Your task to perform on an android device: Go to Amazon Image 0: 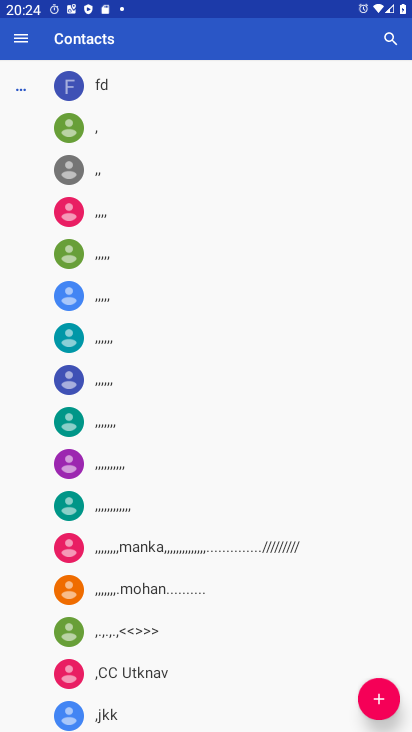
Step 0: press home button
Your task to perform on an android device: Go to Amazon Image 1: 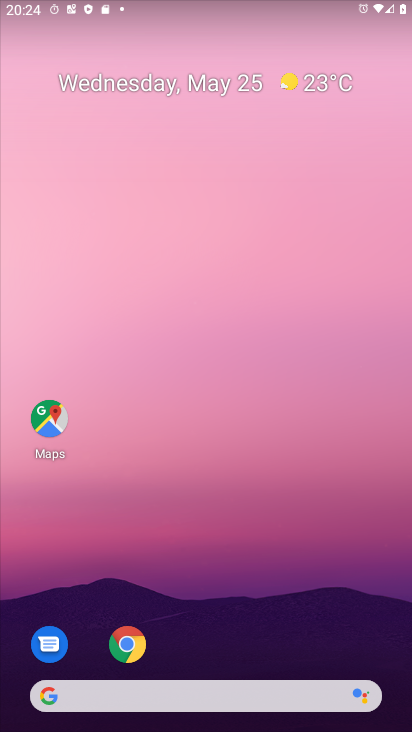
Step 1: drag from (239, 711) to (222, 132)
Your task to perform on an android device: Go to Amazon Image 2: 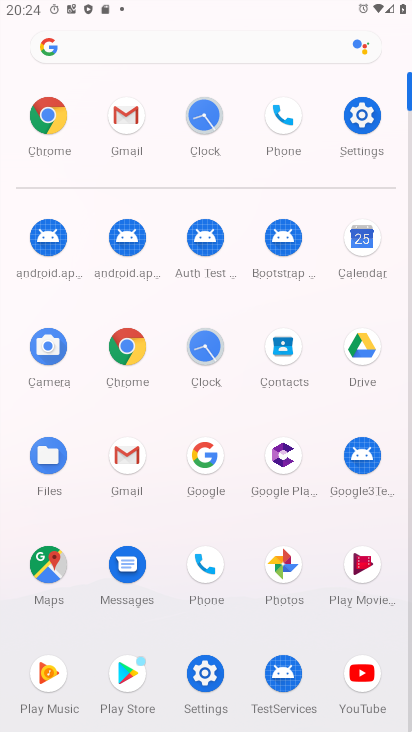
Step 2: click (56, 103)
Your task to perform on an android device: Go to Amazon Image 3: 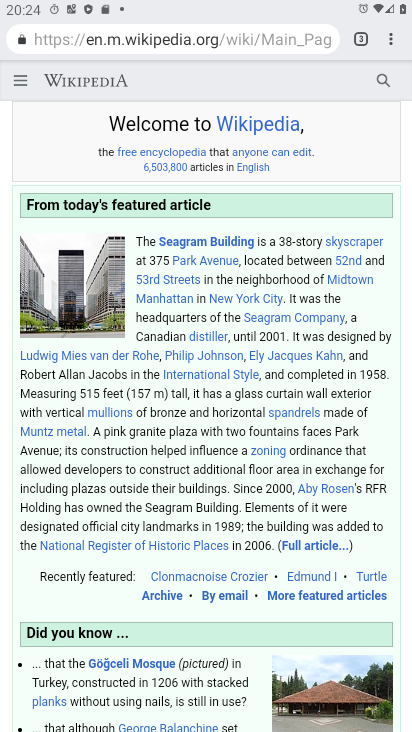
Step 3: click (353, 47)
Your task to perform on an android device: Go to Amazon Image 4: 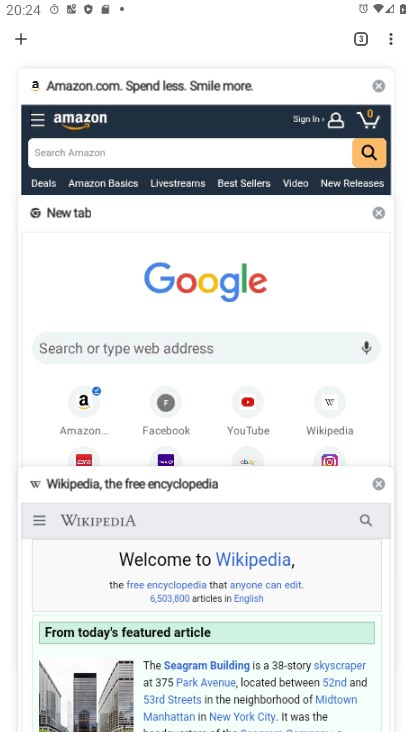
Step 4: click (20, 35)
Your task to perform on an android device: Go to Amazon Image 5: 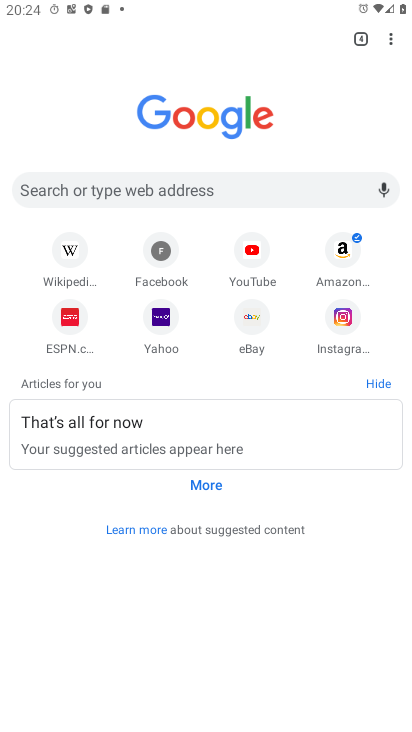
Step 5: click (328, 260)
Your task to perform on an android device: Go to Amazon Image 6: 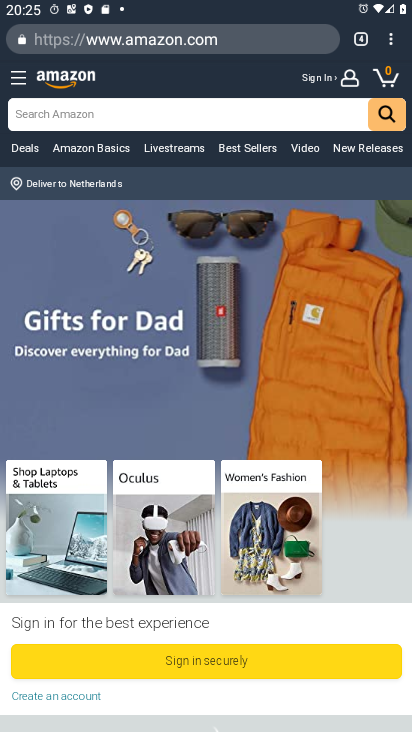
Step 6: task complete